Your task to perform on an android device: Go to Android settings Image 0: 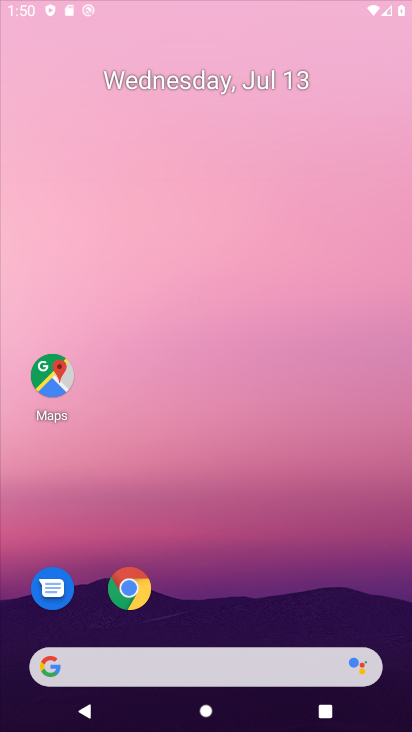
Step 0: click (388, 50)
Your task to perform on an android device: Go to Android settings Image 1: 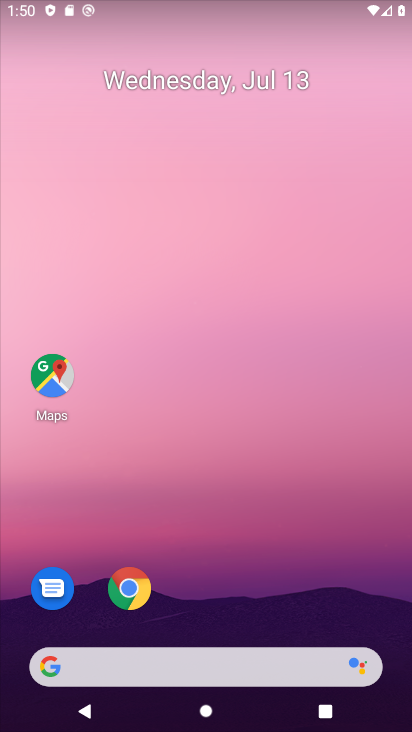
Step 1: drag from (204, 602) to (272, 89)
Your task to perform on an android device: Go to Android settings Image 2: 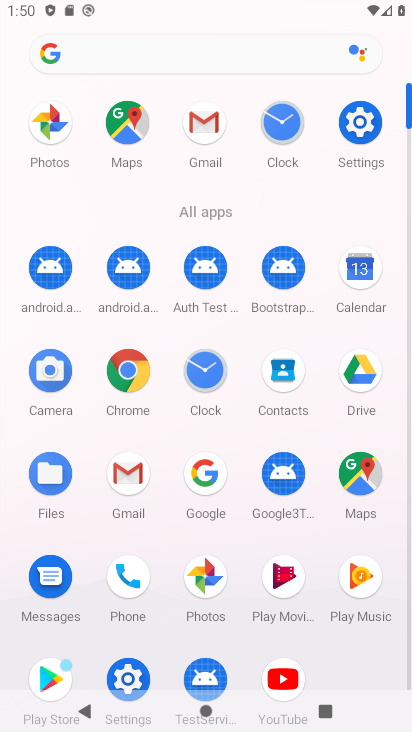
Step 2: click (357, 116)
Your task to perform on an android device: Go to Android settings Image 3: 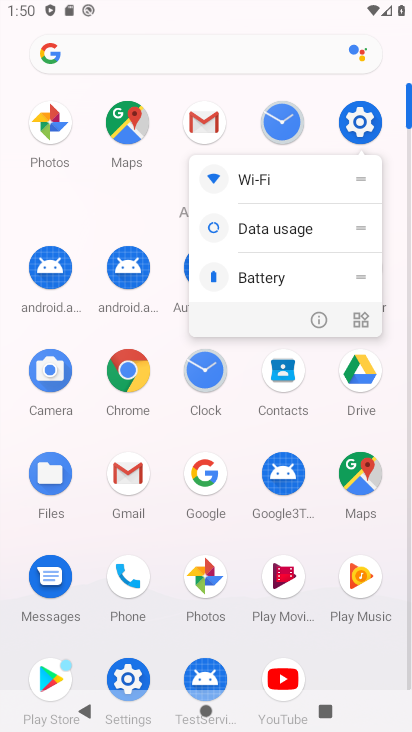
Step 3: click (325, 328)
Your task to perform on an android device: Go to Android settings Image 4: 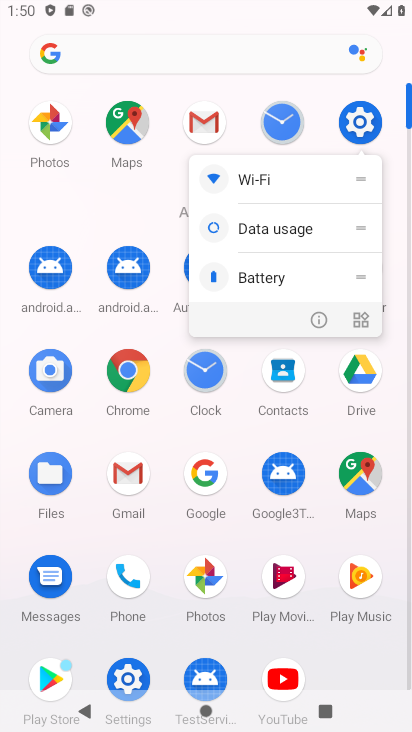
Step 4: click (316, 319)
Your task to perform on an android device: Go to Android settings Image 5: 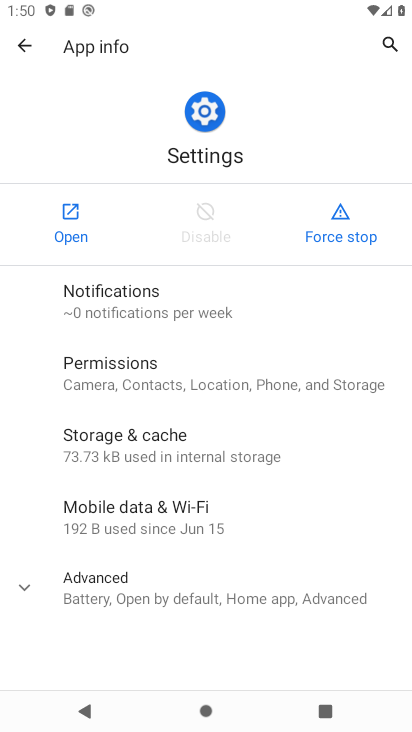
Step 5: click (77, 224)
Your task to perform on an android device: Go to Android settings Image 6: 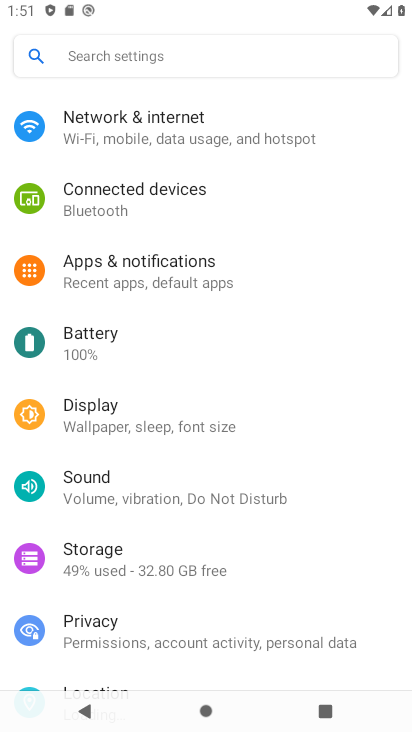
Step 6: drag from (145, 412) to (190, 83)
Your task to perform on an android device: Go to Android settings Image 7: 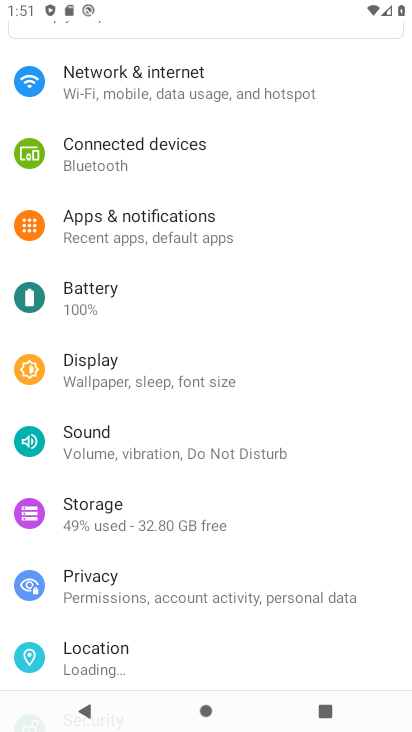
Step 7: drag from (144, 582) to (314, 57)
Your task to perform on an android device: Go to Android settings Image 8: 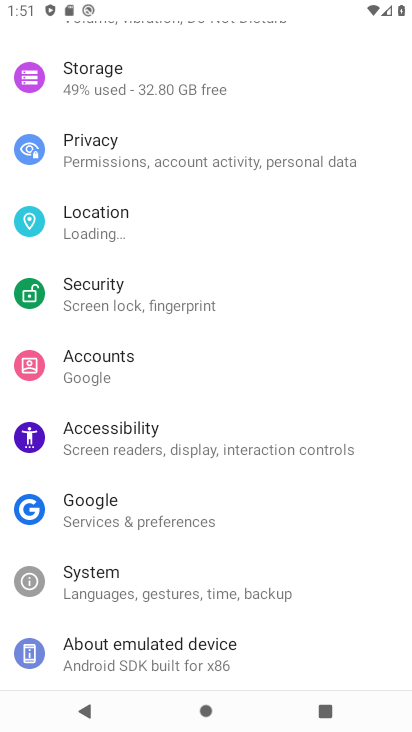
Step 8: click (133, 643)
Your task to perform on an android device: Go to Android settings Image 9: 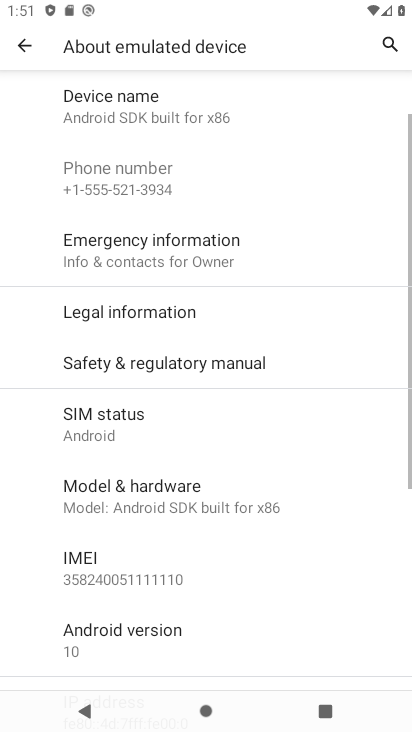
Step 9: click (135, 644)
Your task to perform on an android device: Go to Android settings Image 10: 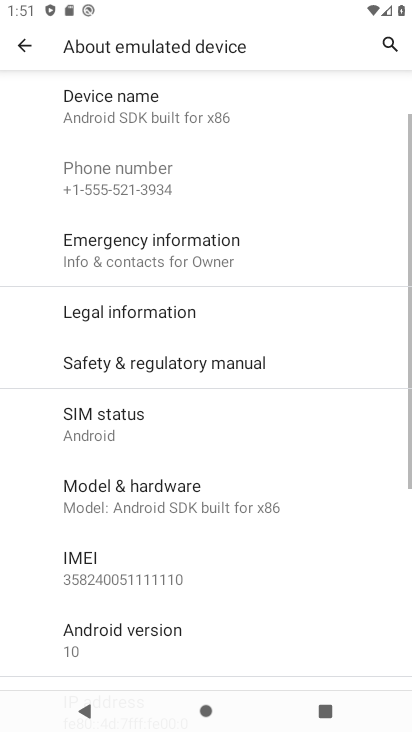
Step 10: click (134, 645)
Your task to perform on an android device: Go to Android settings Image 11: 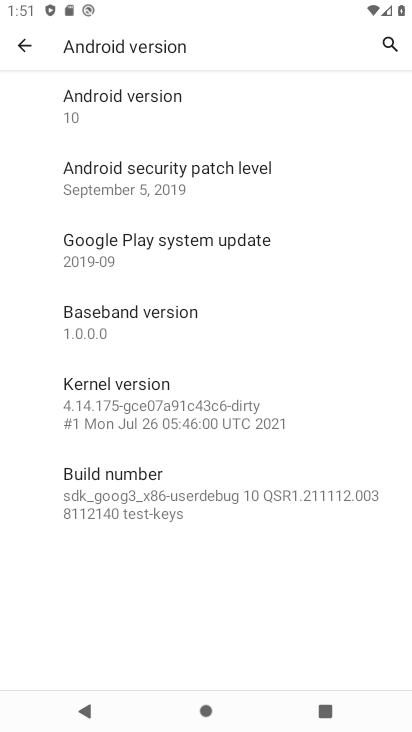
Step 11: drag from (158, 483) to (204, 146)
Your task to perform on an android device: Go to Android settings Image 12: 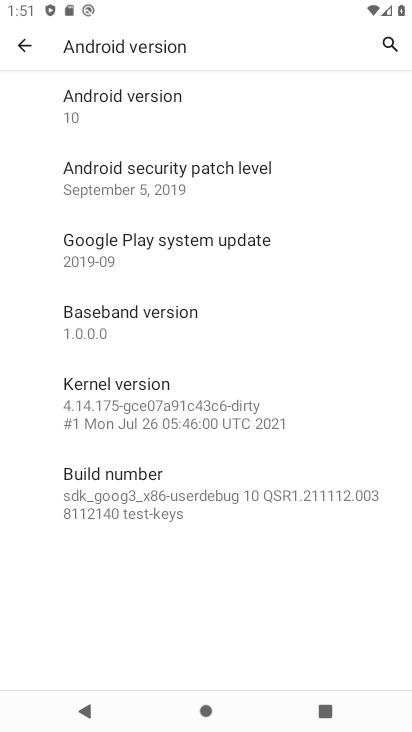
Step 12: click (127, 96)
Your task to perform on an android device: Go to Android settings Image 13: 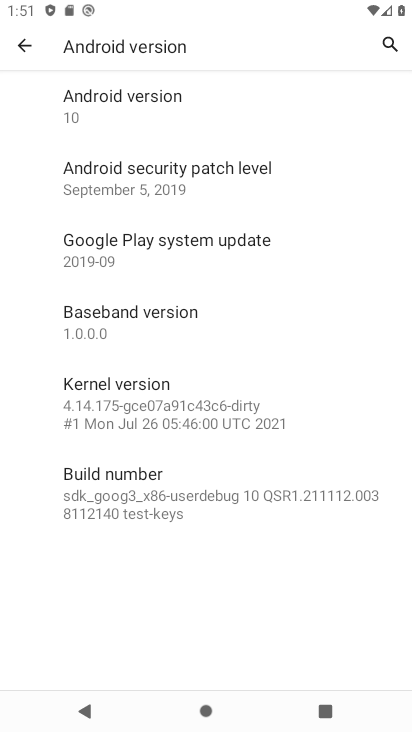
Step 13: task complete